Your task to perform on an android device: Is it going to rain tomorrow? Image 0: 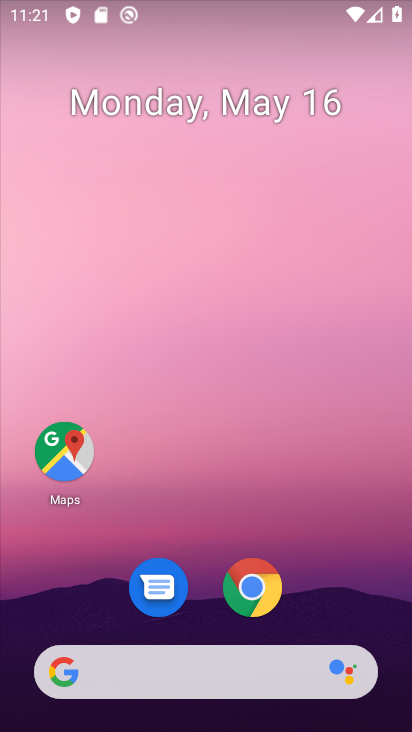
Step 0: drag from (392, 649) to (316, 89)
Your task to perform on an android device: Is it going to rain tomorrow? Image 1: 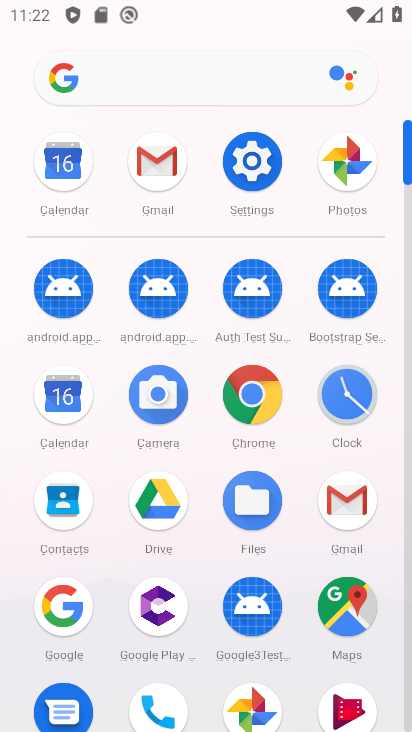
Step 1: click (64, 602)
Your task to perform on an android device: Is it going to rain tomorrow? Image 2: 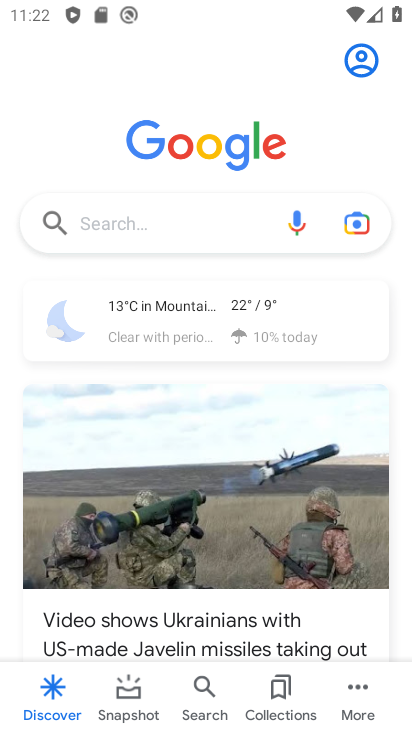
Step 2: click (194, 222)
Your task to perform on an android device: Is it going to rain tomorrow? Image 3: 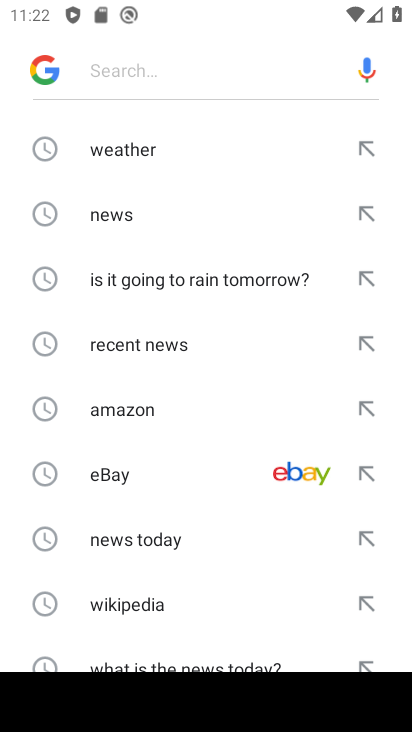
Step 3: click (202, 288)
Your task to perform on an android device: Is it going to rain tomorrow? Image 4: 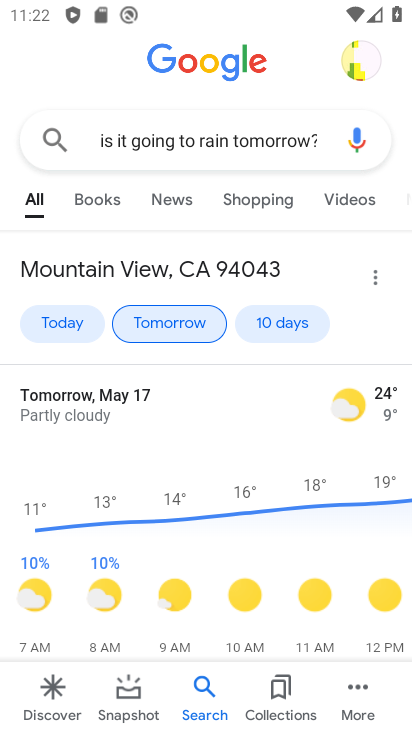
Step 4: task complete